Your task to perform on an android device: open chrome and create a bookmark for the current page Image 0: 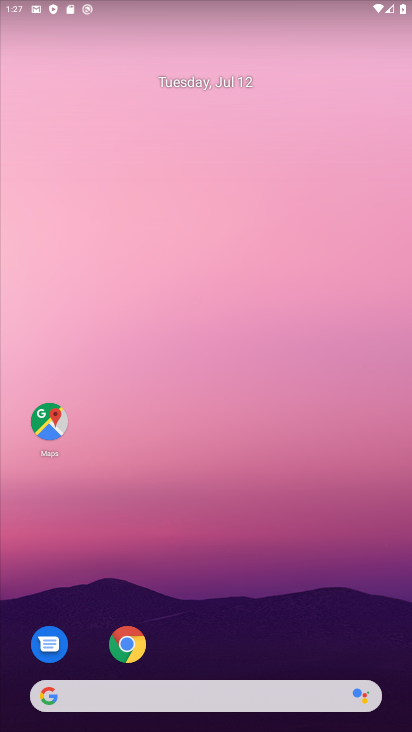
Step 0: drag from (253, 649) to (243, 485)
Your task to perform on an android device: open chrome and create a bookmark for the current page Image 1: 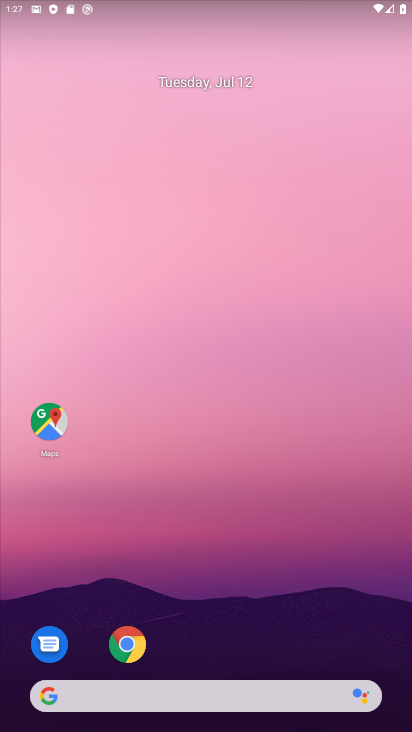
Step 1: click (114, 642)
Your task to perform on an android device: open chrome and create a bookmark for the current page Image 2: 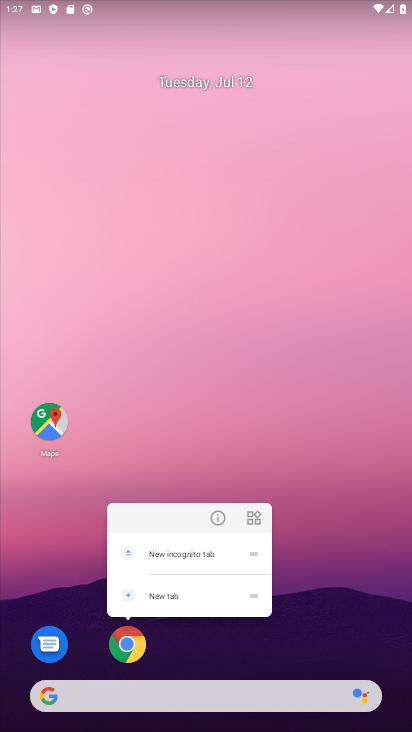
Step 2: click (132, 646)
Your task to perform on an android device: open chrome and create a bookmark for the current page Image 3: 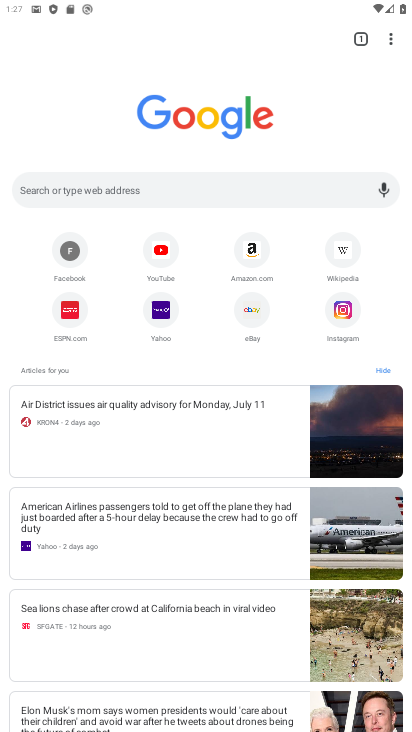
Step 3: task complete